Your task to perform on an android device: Go to privacy settings Image 0: 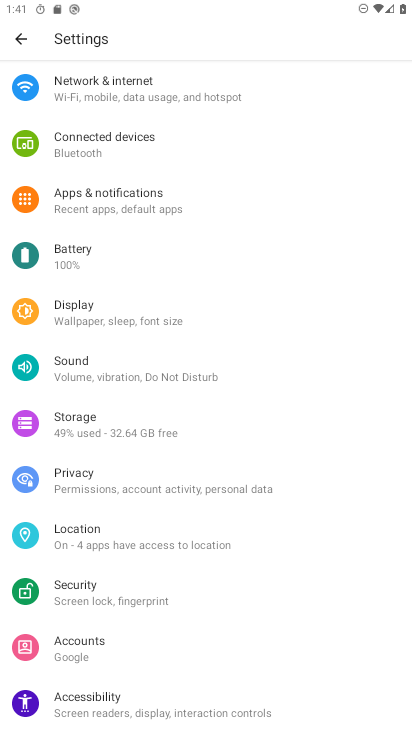
Step 0: click (85, 480)
Your task to perform on an android device: Go to privacy settings Image 1: 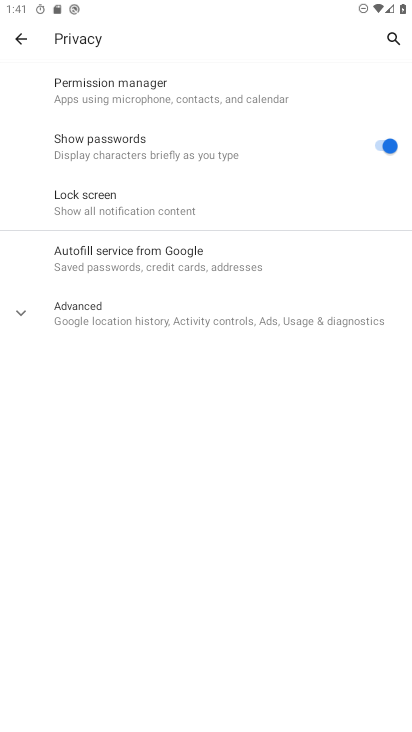
Step 1: task complete